Your task to perform on an android device: set default search engine in the chrome app Image 0: 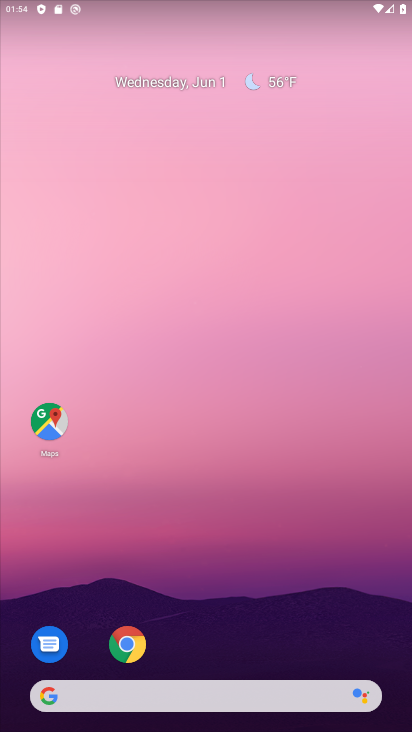
Step 0: drag from (209, 643) to (210, 357)
Your task to perform on an android device: set default search engine in the chrome app Image 1: 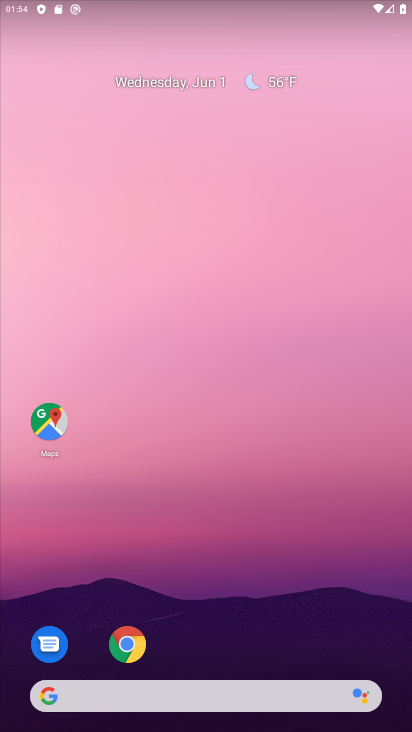
Step 1: drag from (240, 633) to (238, 348)
Your task to perform on an android device: set default search engine in the chrome app Image 2: 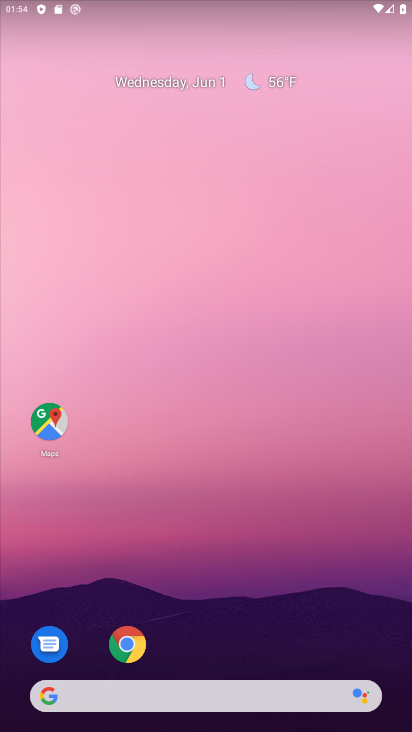
Step 2: drag from (276, 669) to (282, 281)
Your task to perform on an android device: set default search engine in the chrome app Image 3: 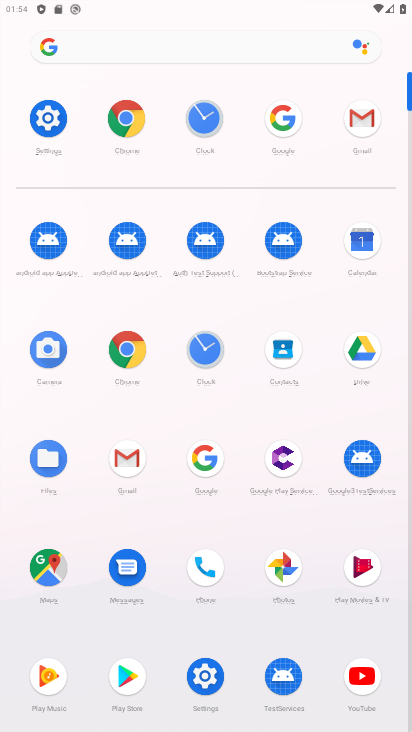
Step 3: click (130, 111)
Your task to perform on an android device: set default search engine in the chrome app Image 4: 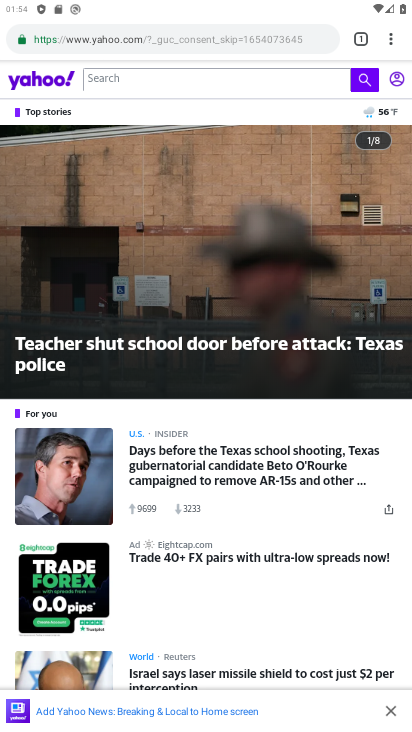
Step 4: click (388, 34)
Your task to perform on an android device: set default search engine in the chrome app Image 5: 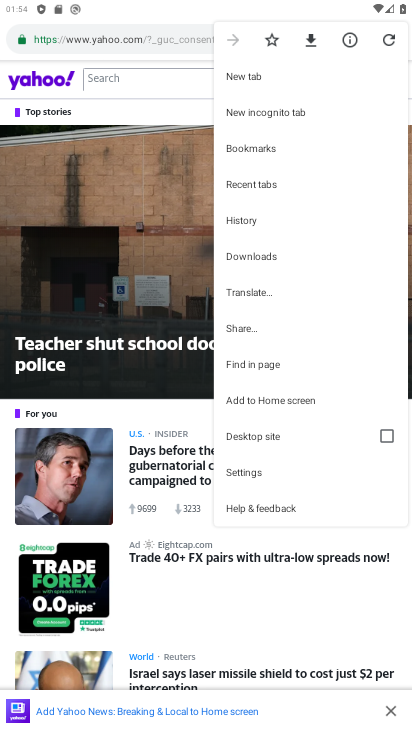
Step 5: click (245, 479)
Your task to perform on an android device: set default search engine in the chrome app Image 6: 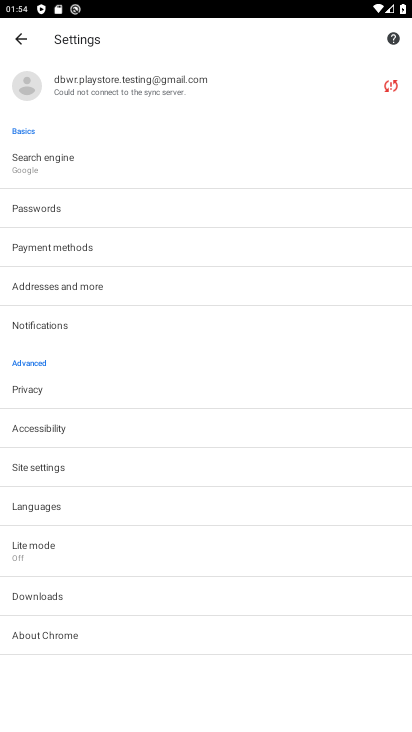
Step 6: click (74, 169)
Your task to perform on an android device: set default search engine in the chrome app Image 7: 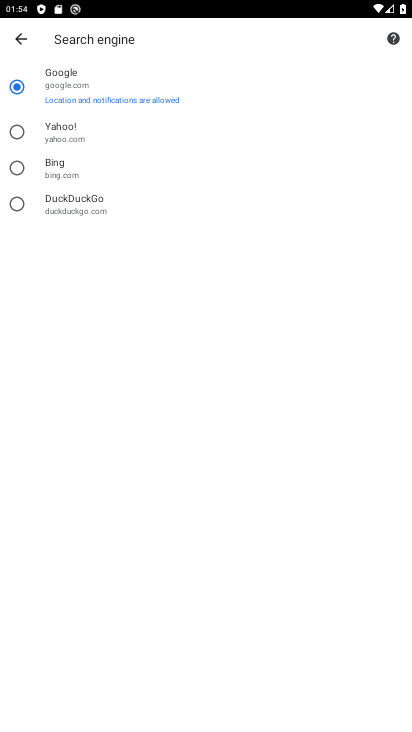
Step 7: task complete